Your task to perform on an android device: Go to accessibility settings Image 0: 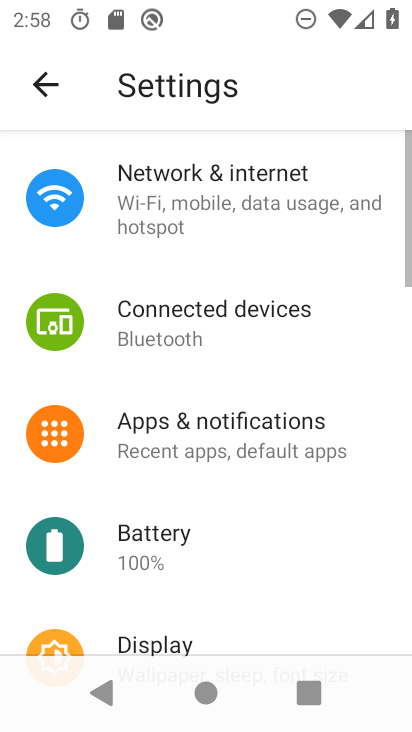
Step 0: press home button
Your task to perform on an android device: Go to accessibility settings Image 1: 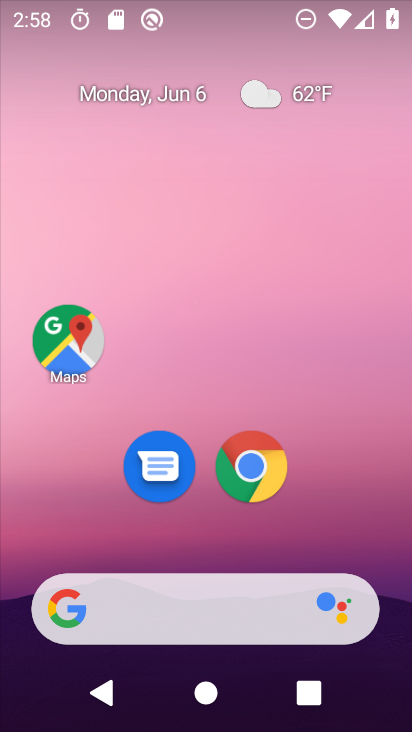
Step 1: drag from (188, 553) to (185, 68)
Your task to perform on an android device: Go to accessibility settings Image 2: 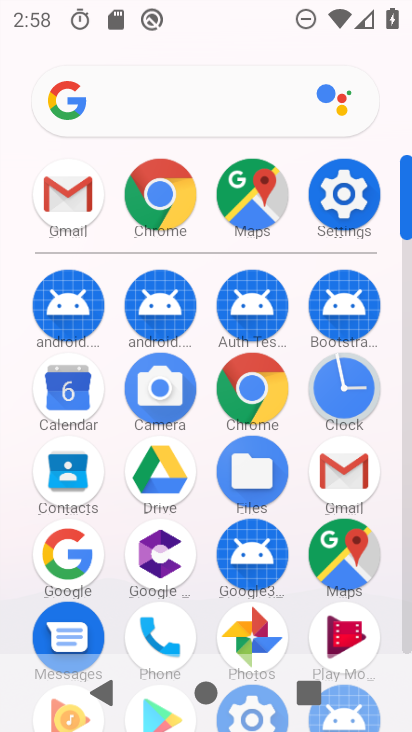
Step 2: click (338, 204)
Your task to perform on an android device: Go to accessibility settings Image 3: 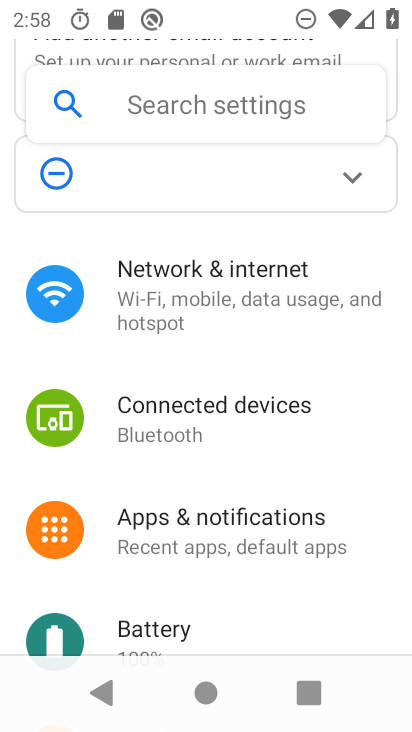
Step 3: drag from (204, 509) to (203, 113)
Your task to perform on an android device: Go to accessibility settings Image 4: 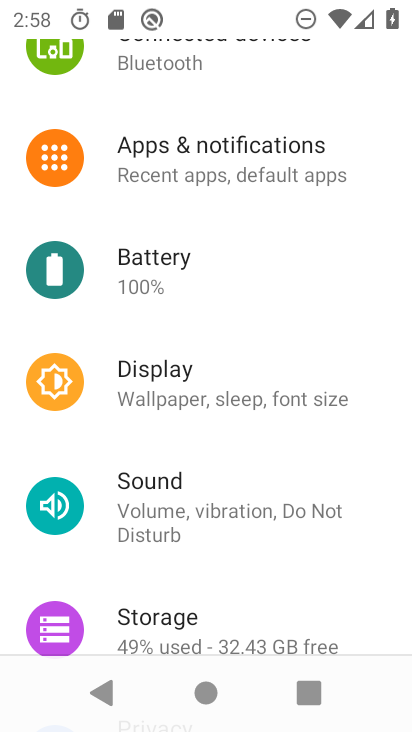
Step 4: drag from (189, 586) to (198, 211)
Your task to perform on an android device: Go to accessibility settings Image 5: 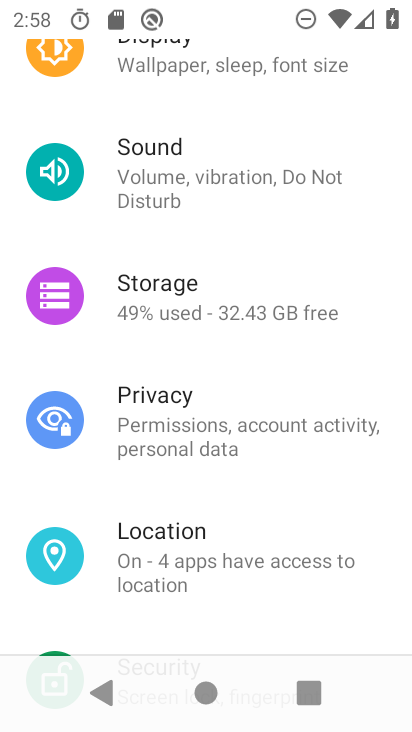
Step 5: drag from (189, 544) to (179, 158)
Your task to perform on an android device: Go to accessibility settings Image 6: 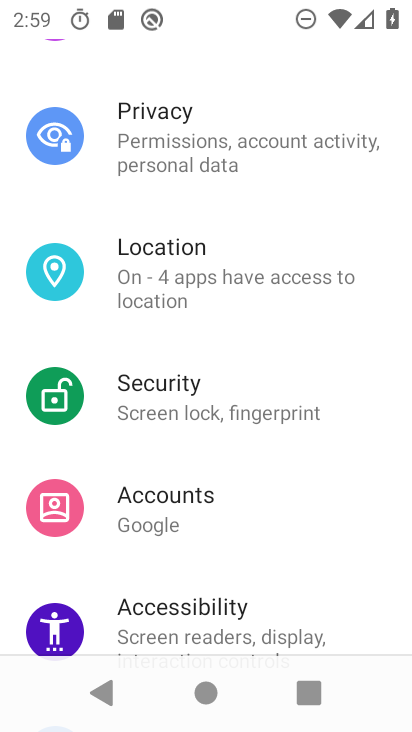
Step 6: drag from (239, 480) to (215, 92)
Your task to perform on an android device: Go to accessibility settings Image 7: 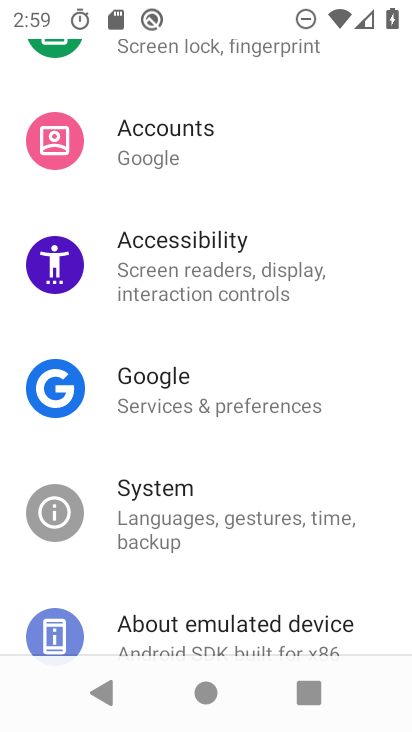
Step 7: click (158, 270)
Your task to perform on an android device: Go to accessibility settings Image 8: 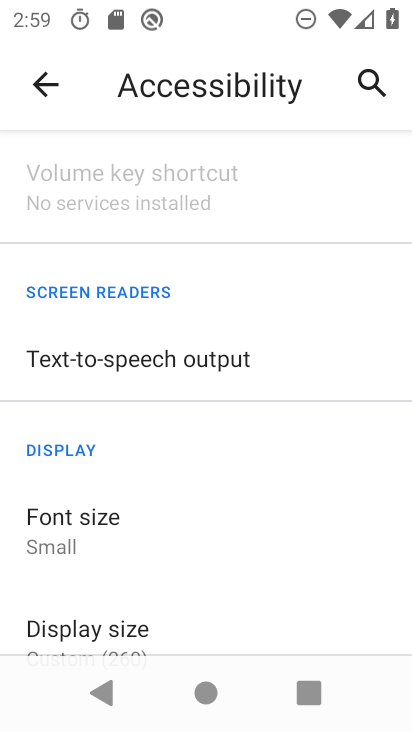
Step 8: task complete